Your task to perform on an android device: open the mobile data screen to see how much data has been used Image 0: 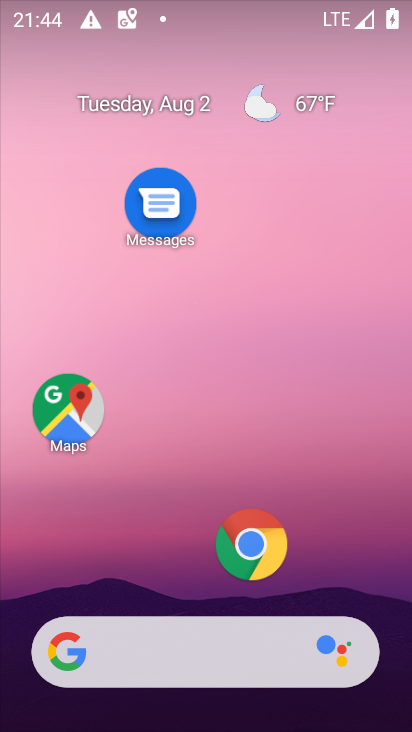
Step 0: drag from (172, 586) to (169, 227)
Your task to perform on an android device: open the mobile data screen to see how much data has been used Image 1: 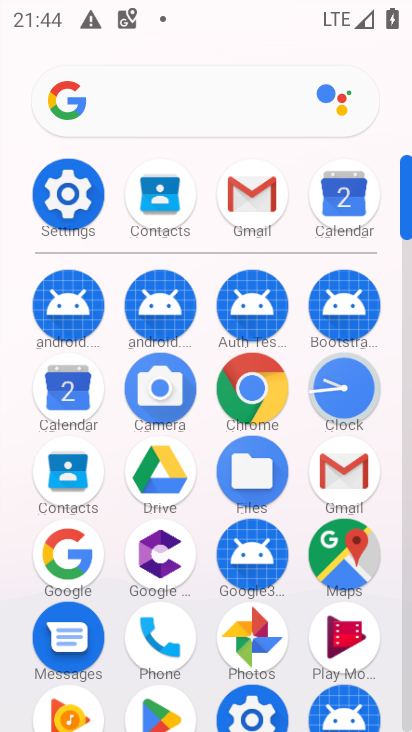
Step 1: click (81, 219)
Your task to perform on an android device: open the mobile data screen to see how much data has been used Image 2: 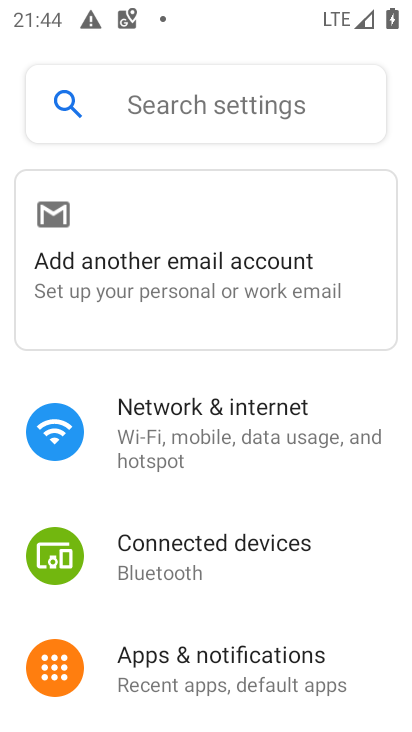
Step 2: click (224, 414)
Your task to perform on an android device: open the mobile data screen to see how much data has been used Image 3: 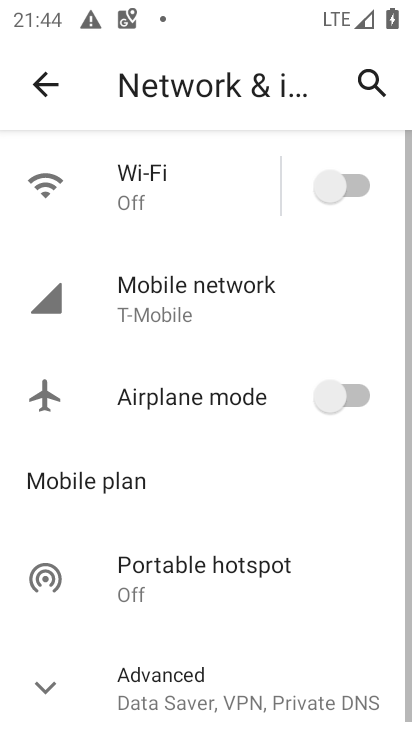
Step 3: click (198, 317)
Your task to perform on an android device: open the mobile data screen to see how much data has been used Image 4: 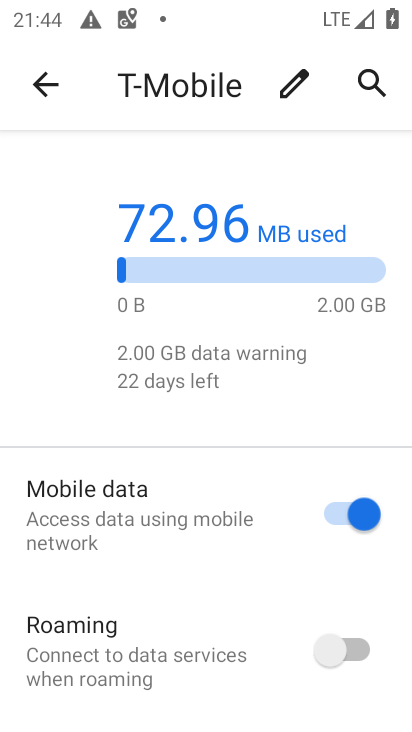
Step 4: drag from (217, 644) to (230, 369)
Your task to perform on an android device: open the mobile data screen to see how much data has been used Image 5: 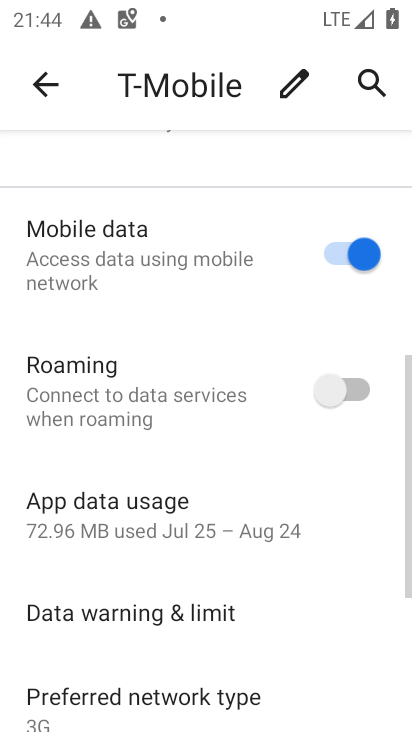
Step 5: click (177, 510)
Your task to perform on an android device: open the mobile data screen to see how much data has been used Image 6: 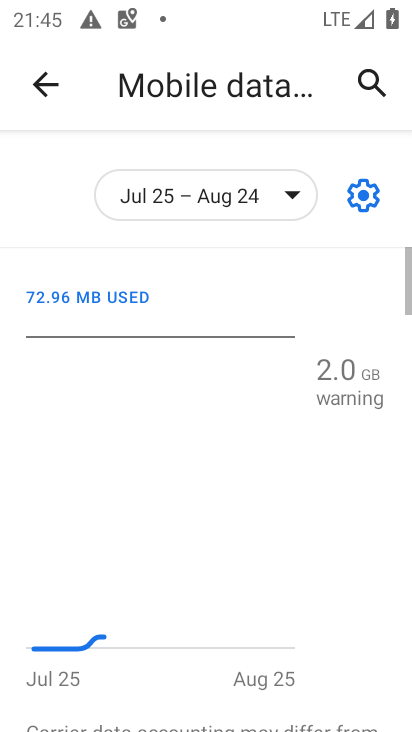
Step 6: task complete